Your task to perform on an android device: check data usage Image 0: 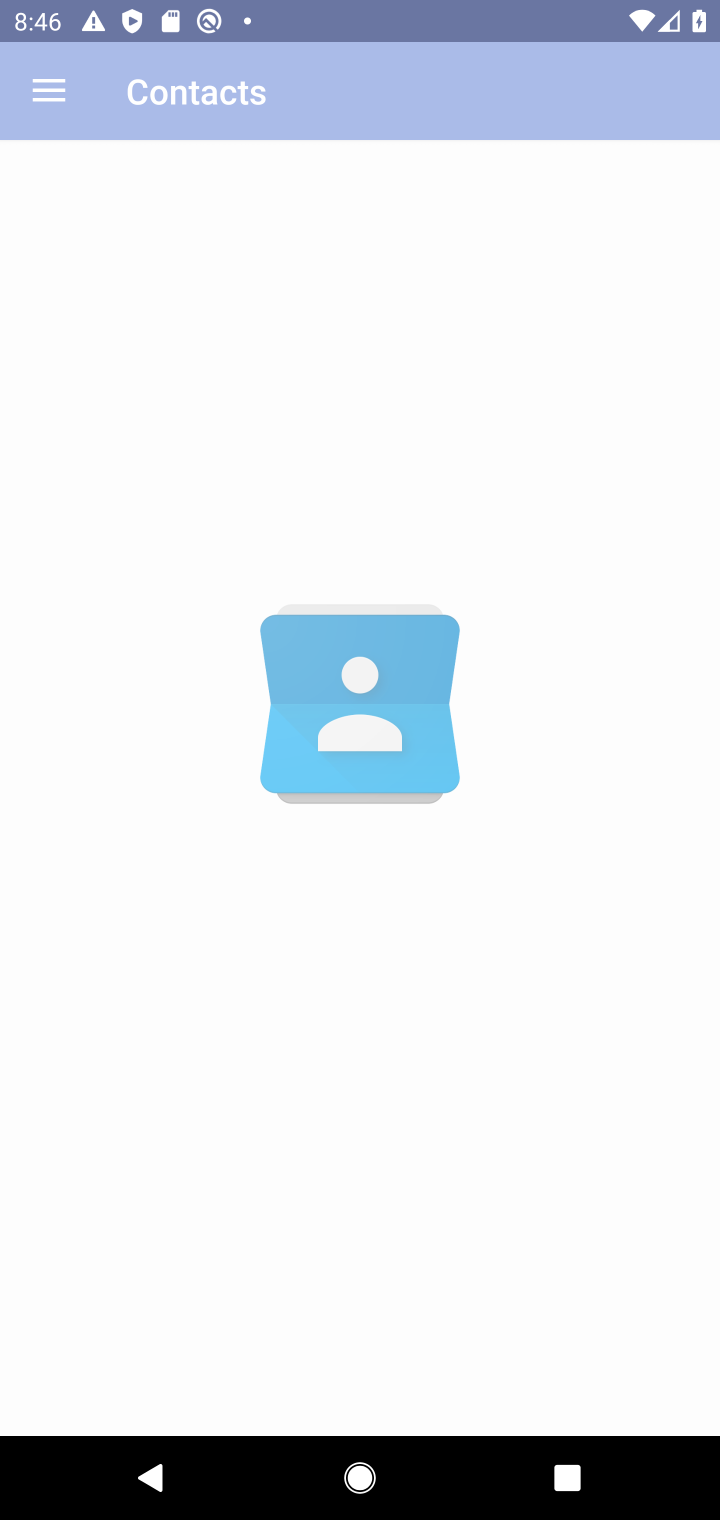
Step 0: press home button
Your task to perform on an android device: check data usage Image 1: 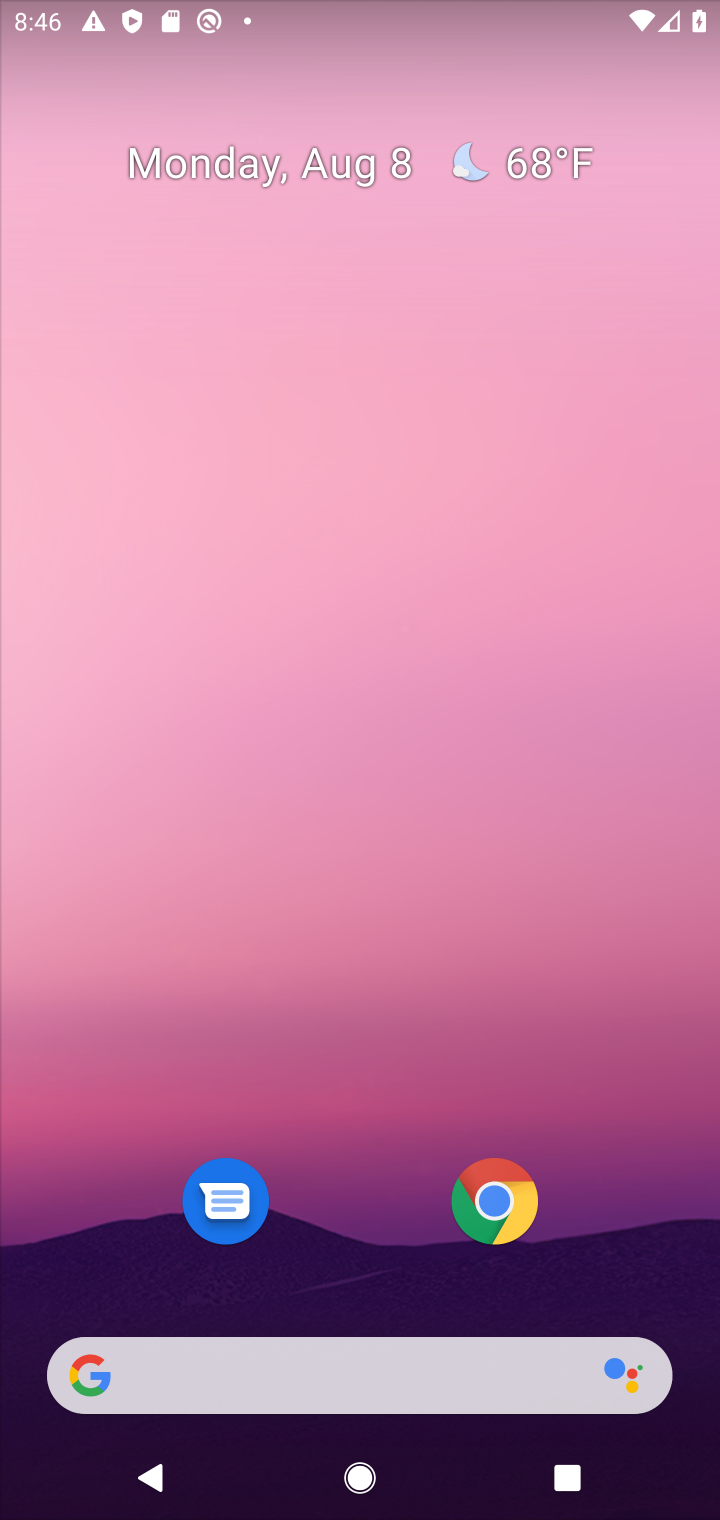
Step 1: drag from (626, 1199) to (640, 179)
Your task to perform on an android device: check data usage Image 2: 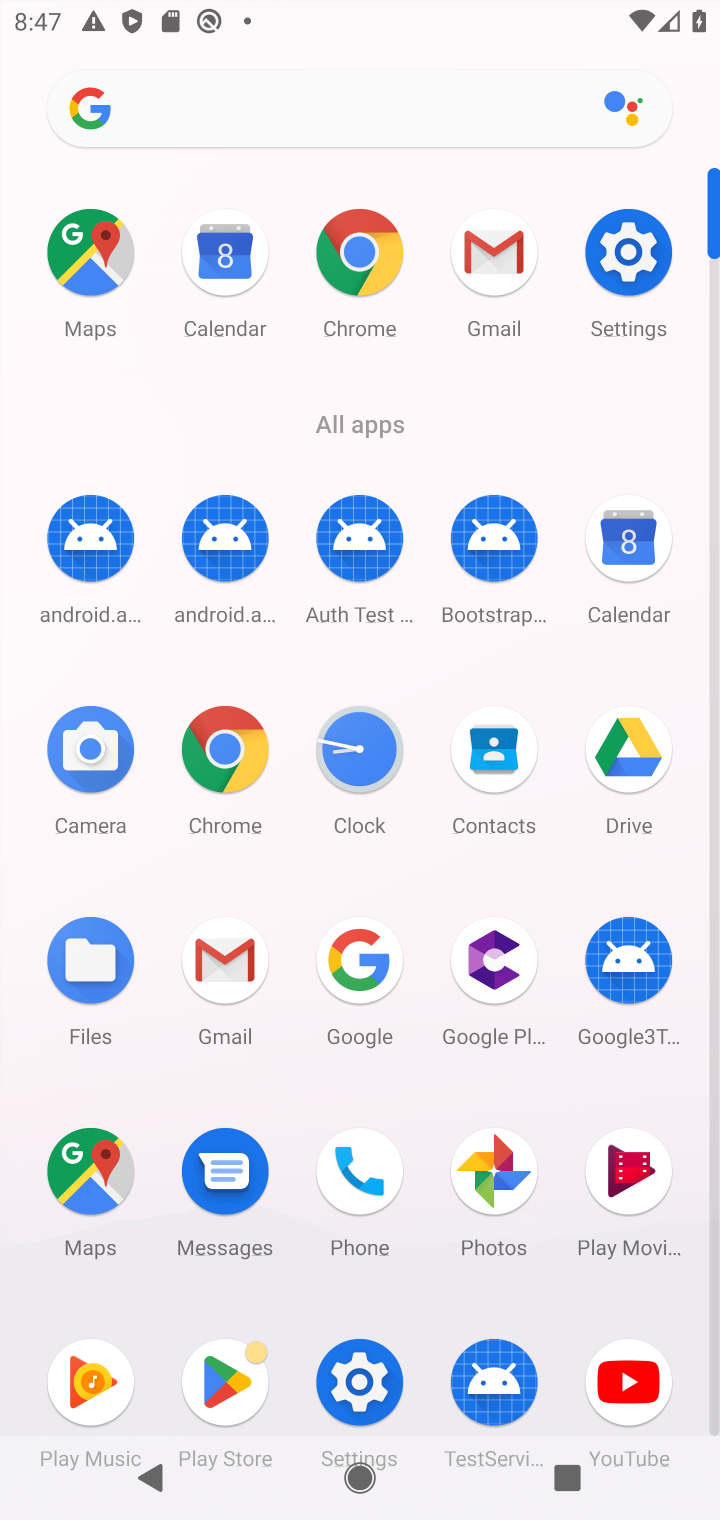
Step 2: click (631, 256)
Your task to perform on an android device: check data usage Image 3: 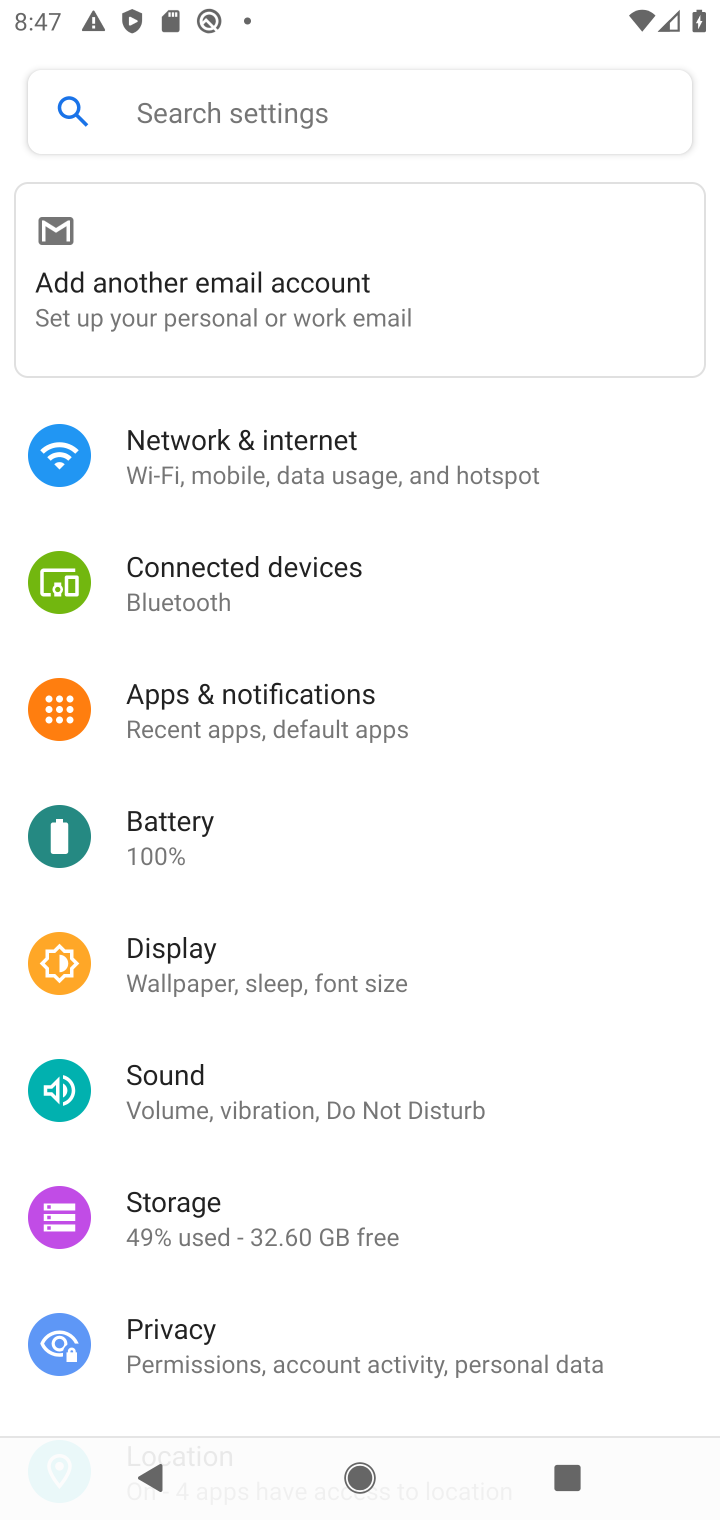
Step 3: click (467, 464)
Your task to perform on an android device: check data usage Image 4: 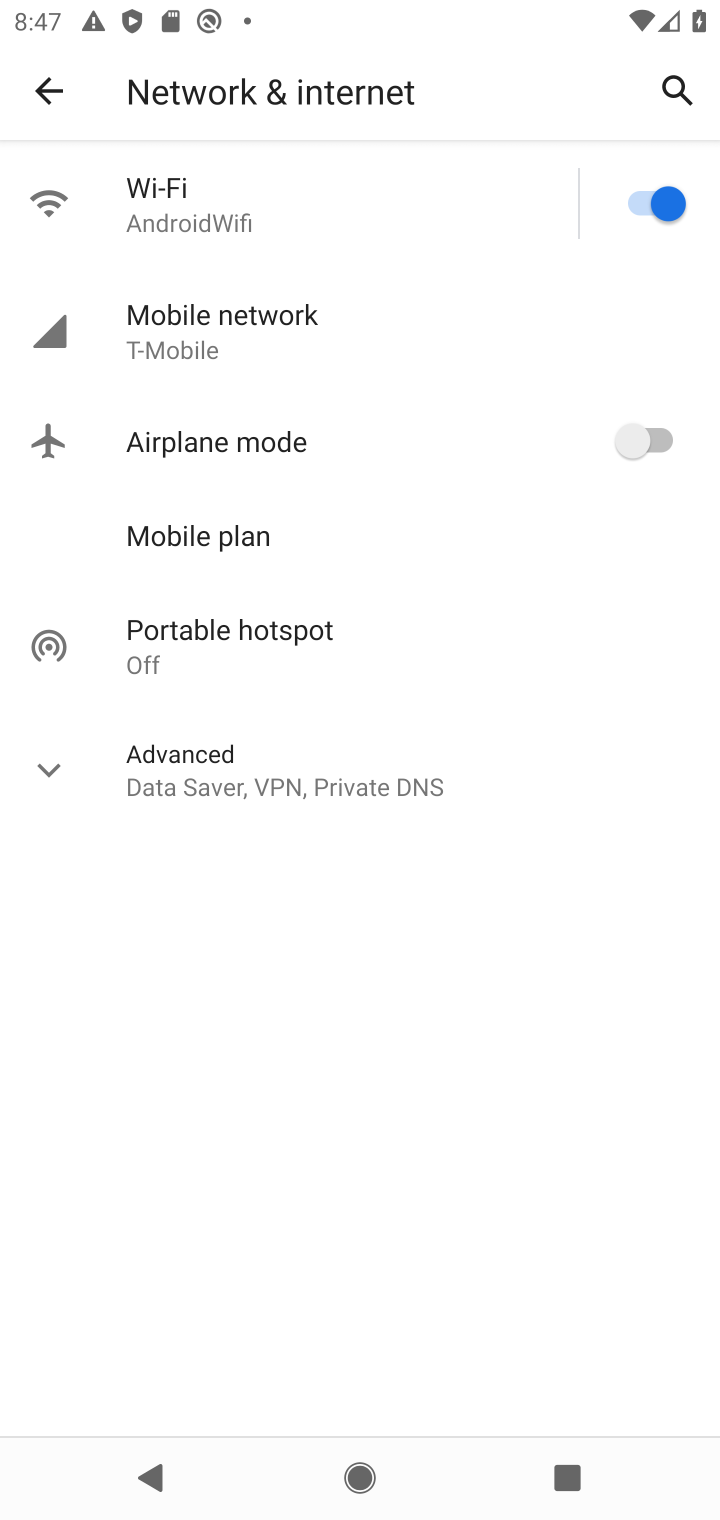
Step 4: click (213, 322)
Your task to perform on an android device: check data usage Image 5: 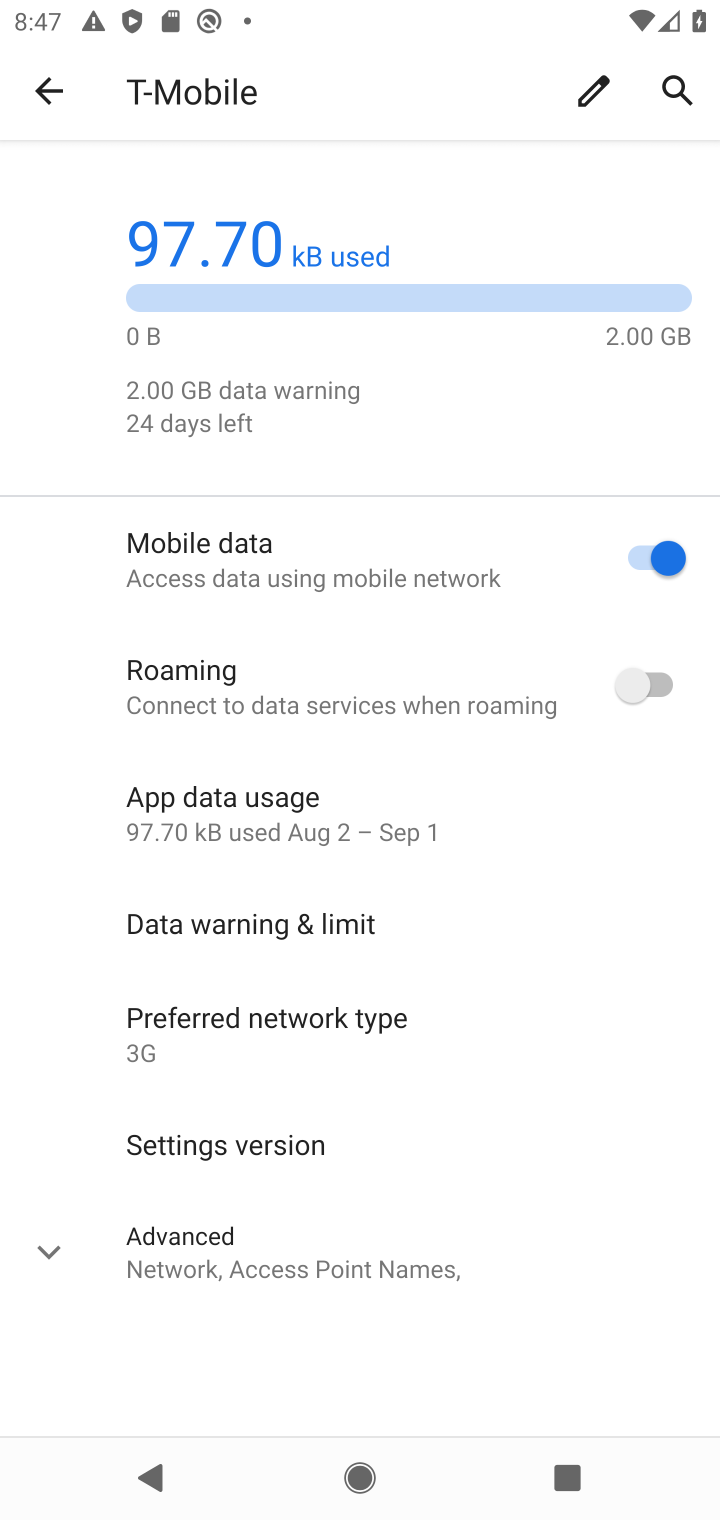
Step 5: click (311, 823)
Your task to perform on an android device: check data usage Image 6: 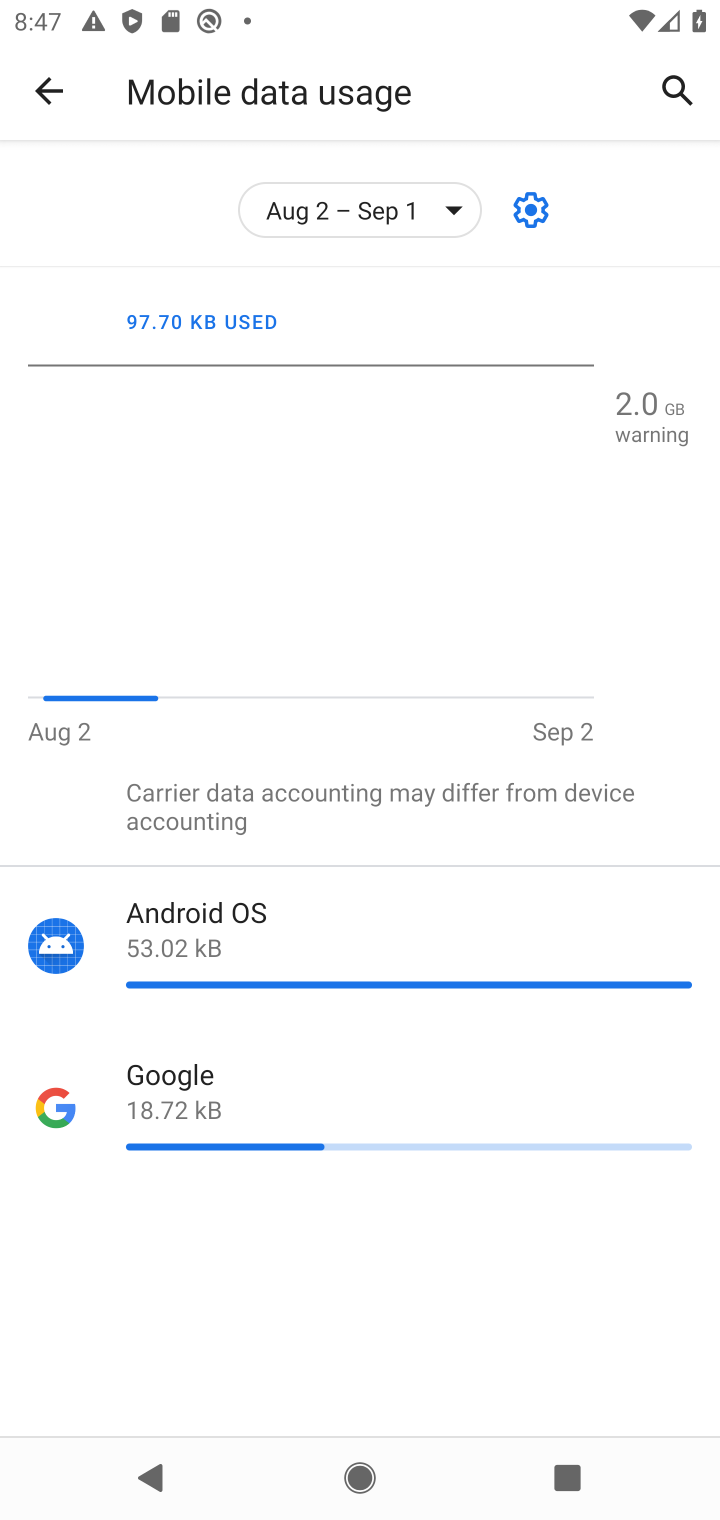
Step 6: task complete